Your task to perform on an android device: choose inbox layout in the gmail app Image 0: 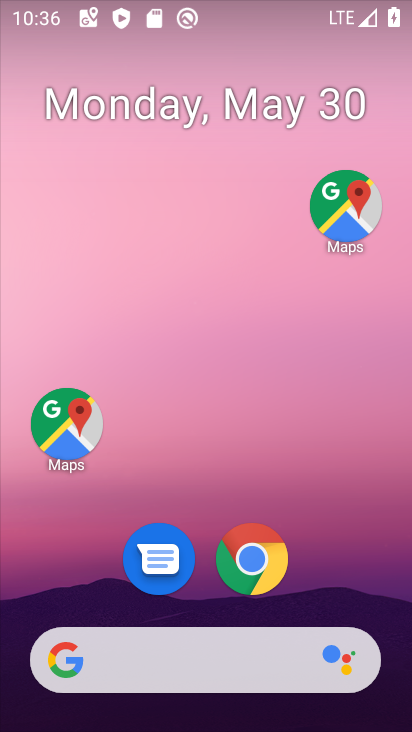
Step 0: drag from (340, 533) to (298, 82)
Your task to perform on an android device: choose inbox layout in the gmail app Image 1: 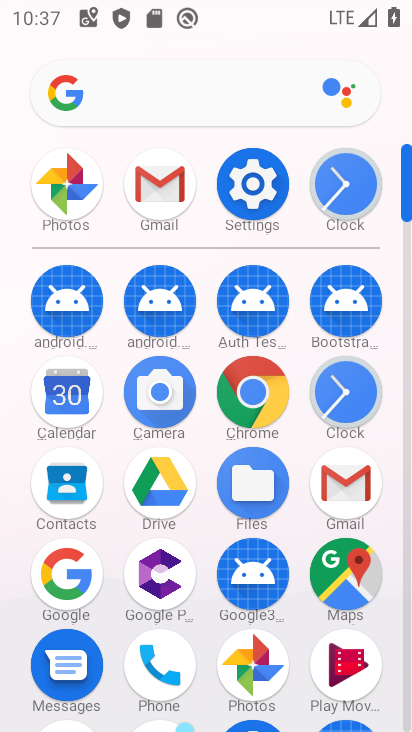
Step 1: click (161, 188)
Your task to perform on an android device: choose inbox layout in the gmail app Image 2: 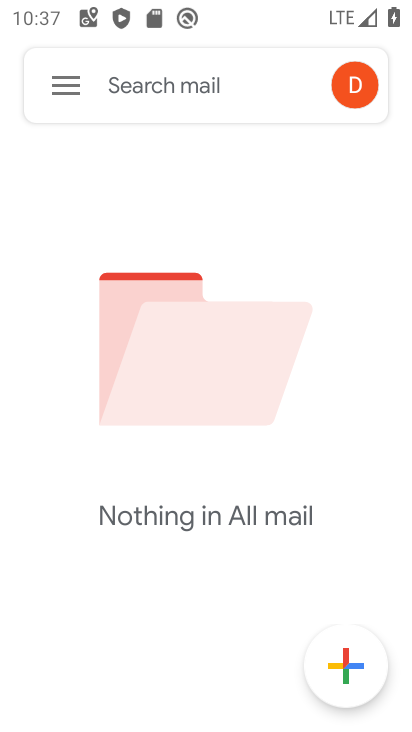
Step 2: click (52, 78)
Your task to perform on an android device: choose inbox layout in the gmail app Image 3: 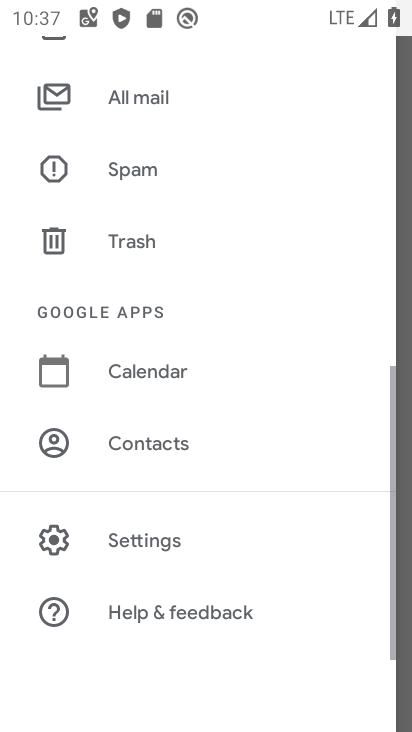
Step 3: click (130, 535)
Your task to perform on an android device: choose inbox layout in the gmail app Image 4: 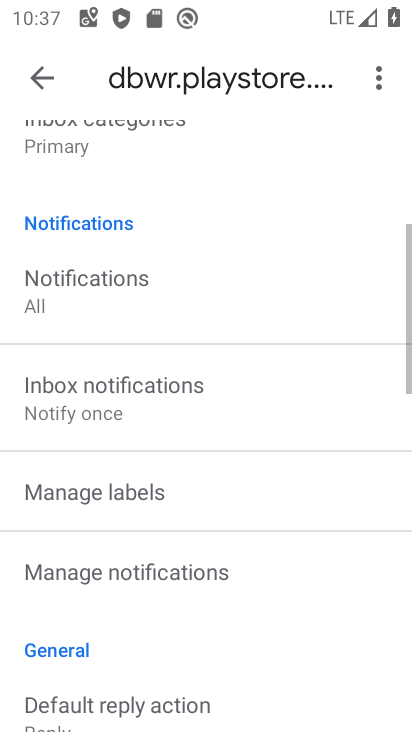
Step 4: drag from (239, 149) to (261, 619)
Your task to perform on an android device: choose inbox layout in the gmail app Image 5: 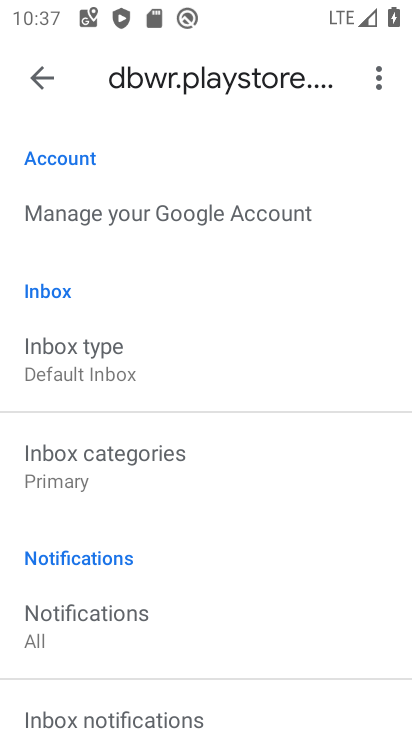
Step 5: click (51, 355)
Your task to perform on an android device: choose inbox layout in the gmail app Image 6: 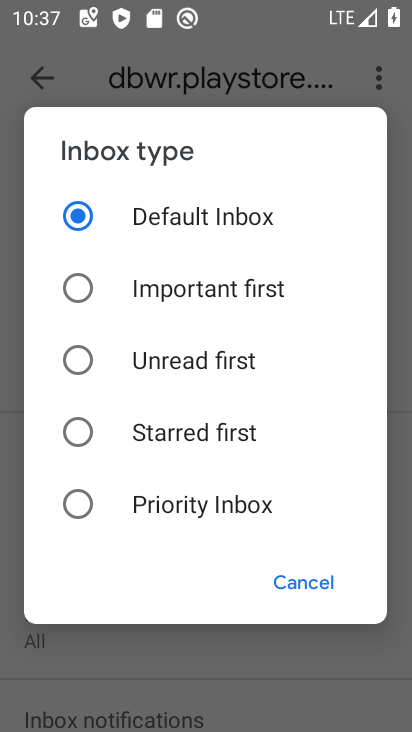
Step 6: task complete